Your task to perform on an android device: turn pop-ups off in chrome Image 0: 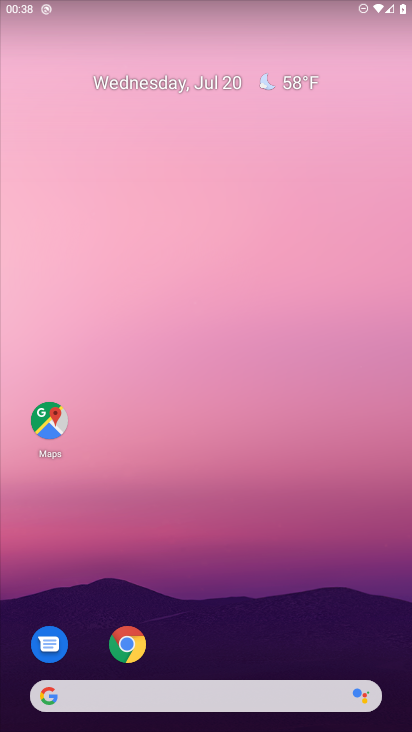
Step 0: click (122, 645)
Your task to perform on an android device: turn pop-ups off in chrome Image 1: 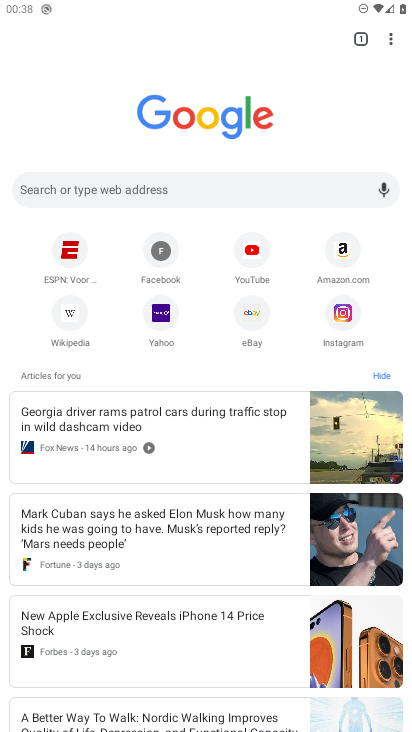
Step 1: click (388, 34)
Your task to perform on an android device: turn pop-ups off in chrome Image 2: 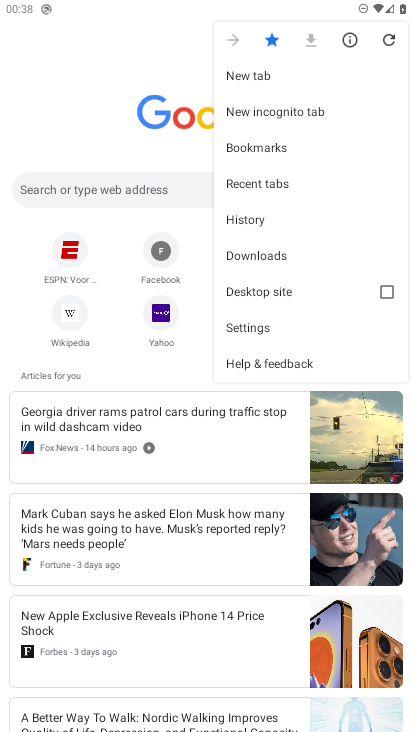
Step 2: click (265, 333)
Your task to perform on an android device: turn pop-ups off in chrome Image 3: 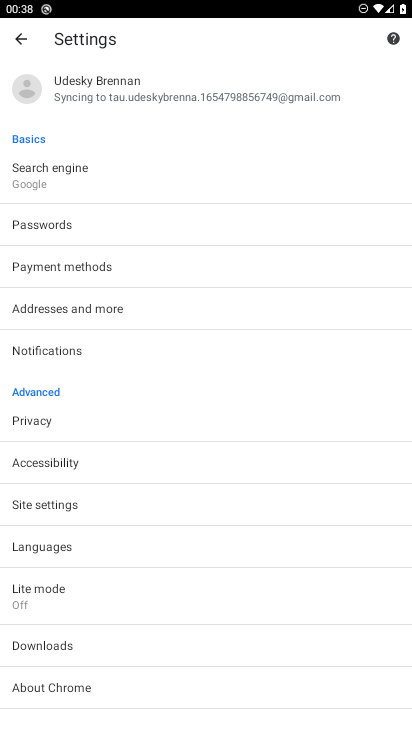
Step 3: click (68, 508)
Your task to perform on an android device: turn pop-ups off in chrome Image 4: 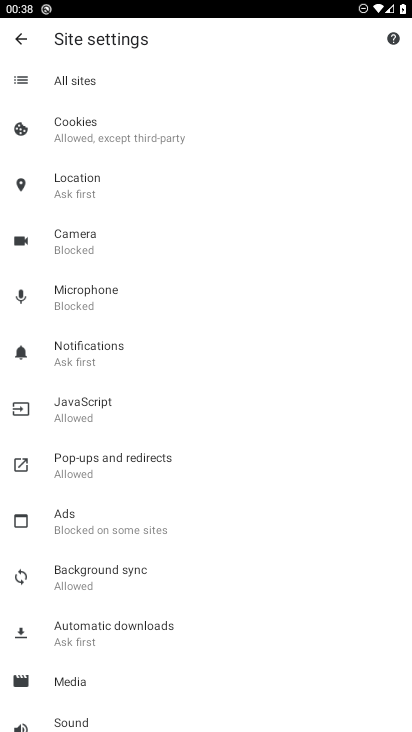
Step 4: click (69, 451)
Your task to perform on an android device: turn pop-ups off in chrome Image 5: 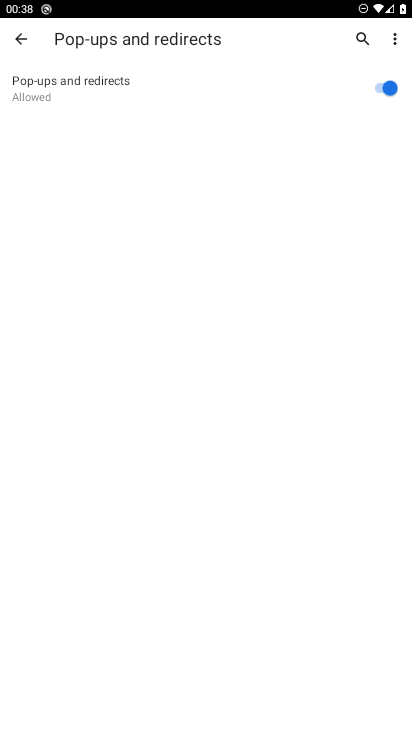
Step 5: click (378, 80)
Your task to perform on an android device: turn pop-ups off in chrome Image 6: 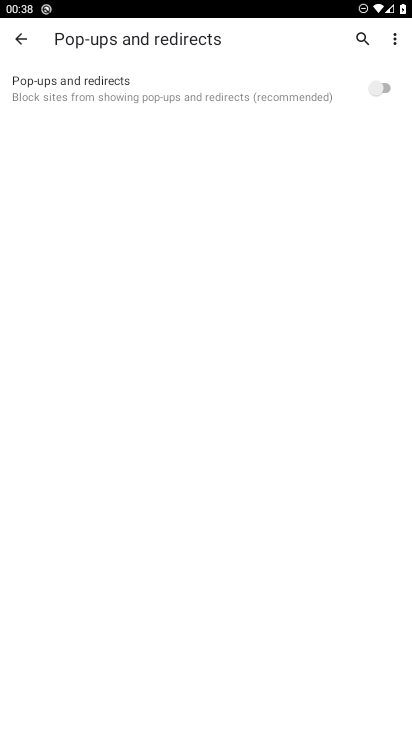
Step 6: task complete